Your task to perform on an android device: toggle wifi Image 0: 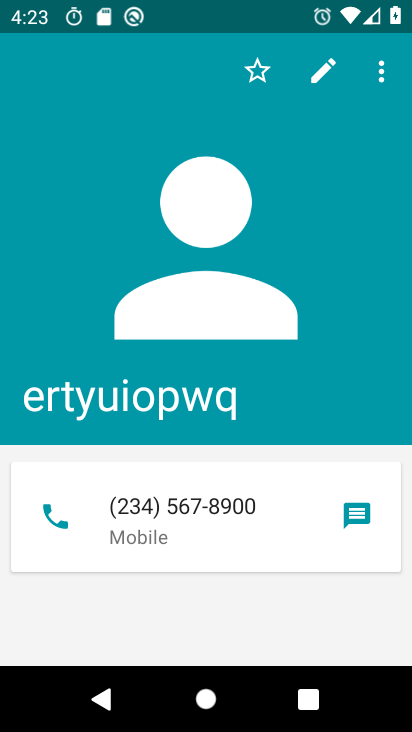
Step 0: press home button
Your task to perform on an android device: toggle wifi Image 1: 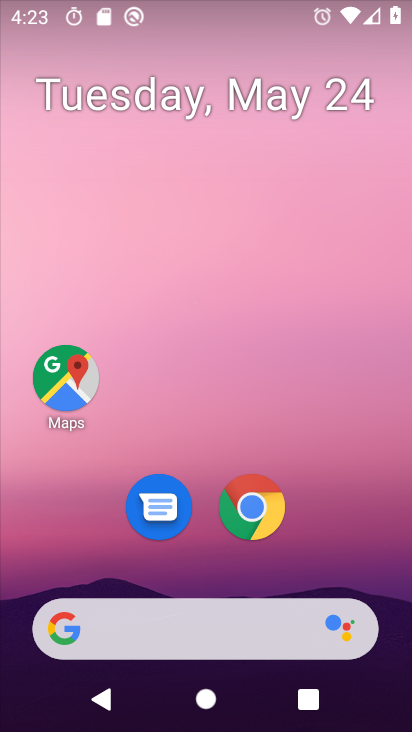
Step 1: drag from (339, 563) to (411, 229)
Your task to perform on an android device: toggle wifi Image 2: 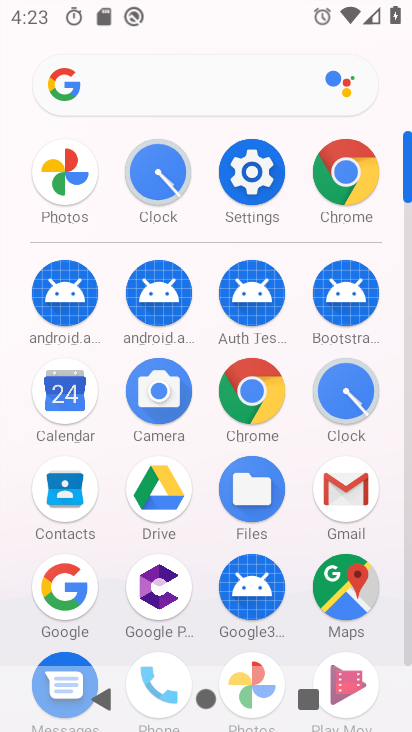
Step 2: click (244, 167)
Your task to perform on an android device: toggle wifi Image 3: 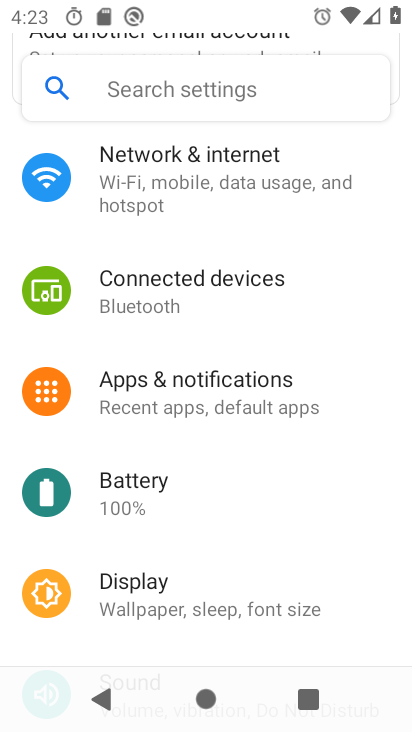
Step 3: click (251, 200)
Your task to perform on an android device: toggle wifi Image 4: 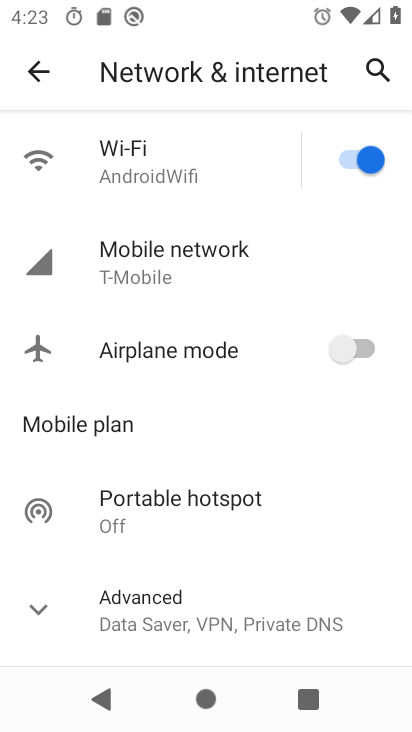
Step 4: click (353, 154)
Your task to perform on an android device: toggle wifi Image 5: 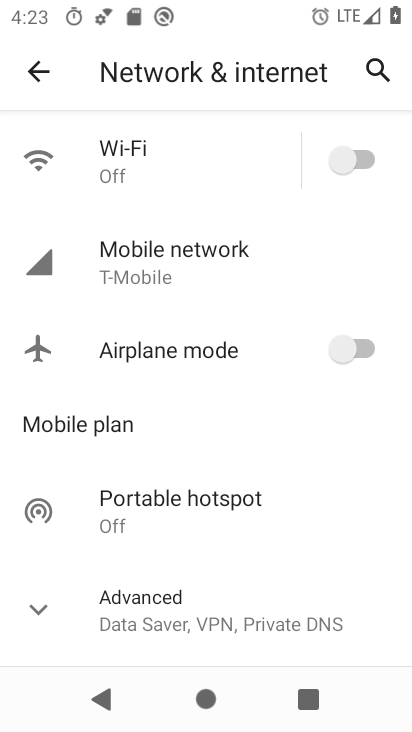
Step 5: task complete